Your task to perform on an android device: open wifi settings Image 0: 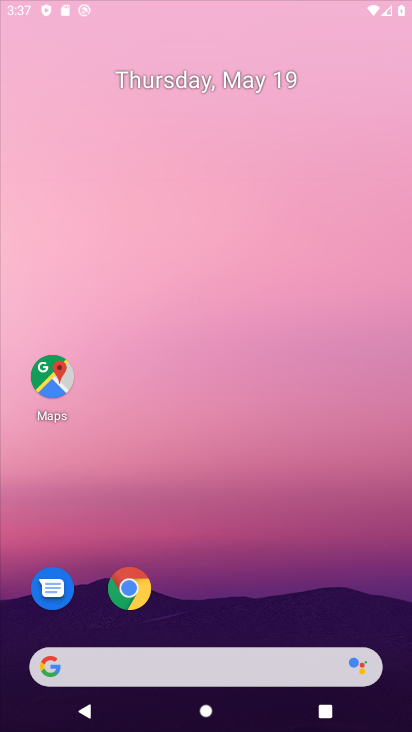
Step 0: click (134, 593)
Your task to perform on an android device: open wifi settings Image 1: 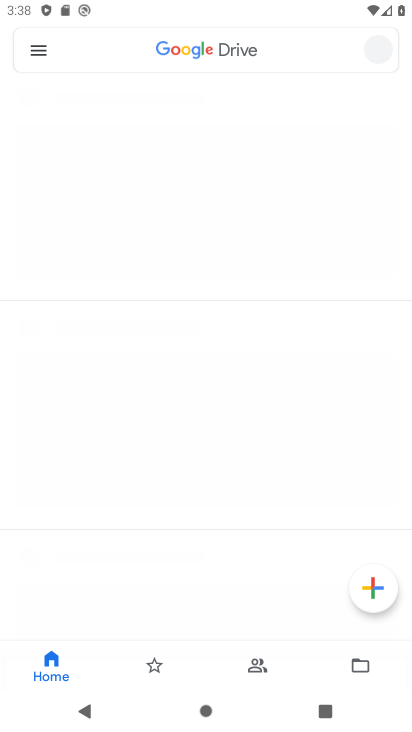
Step 1: click (201, 570)
Your task to perform on an android device: open wifi settings Image 2: 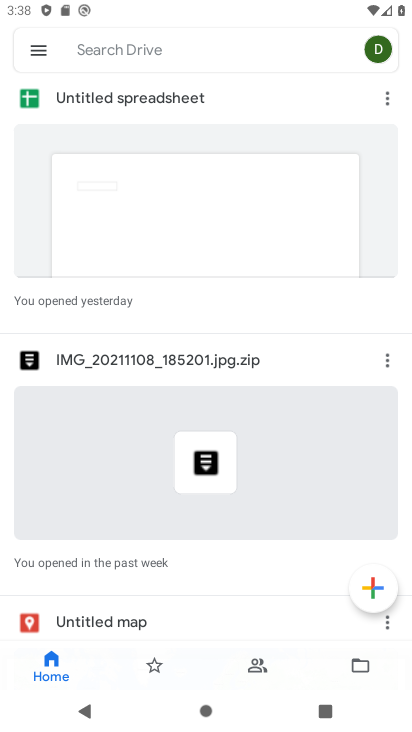
Step 2: press home button
Your task to perform on an android device: open wifi settings Image 3: 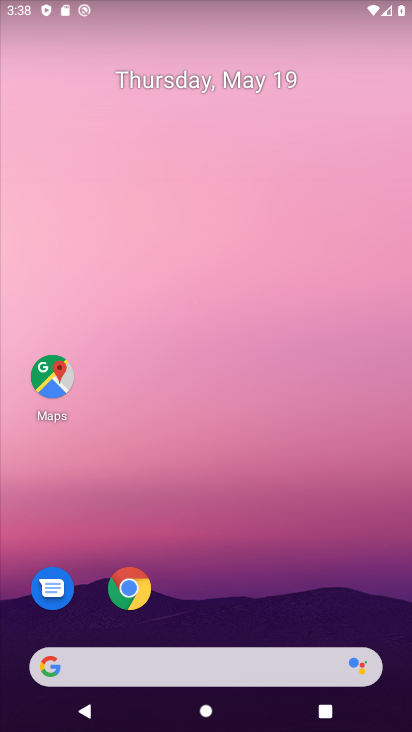
Step 3: drag from (255, 598) to (298, 196)
Your task to perform on an android device: open wifi settings Image 4: 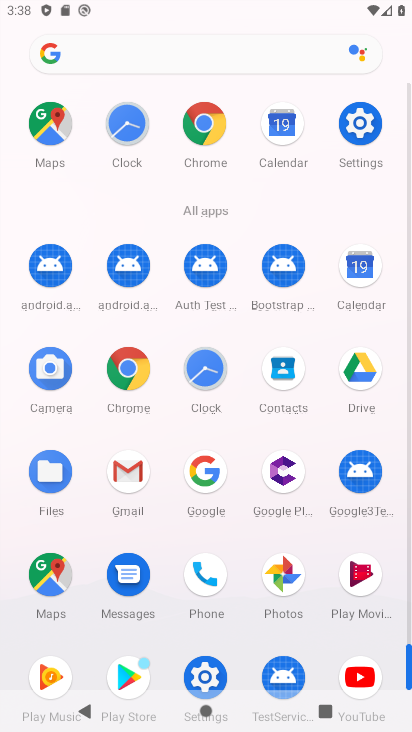
Step 4: click (370, 133)
Your task to perform on an android device: open wifi settings Image 5: 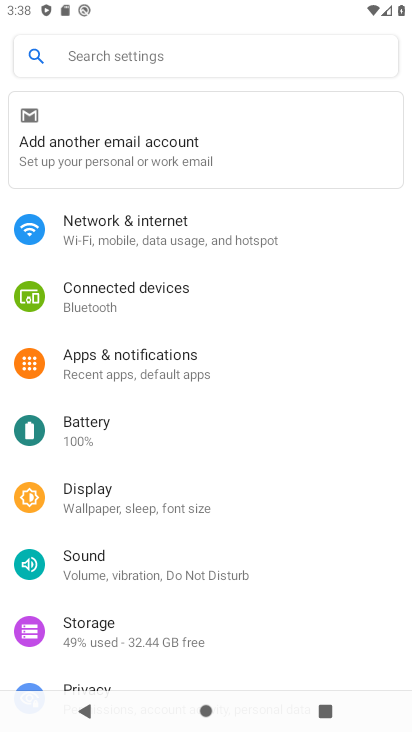
Step 5: click (162, 223)
Your task to perform on an android device: open wifi settings Image 6: 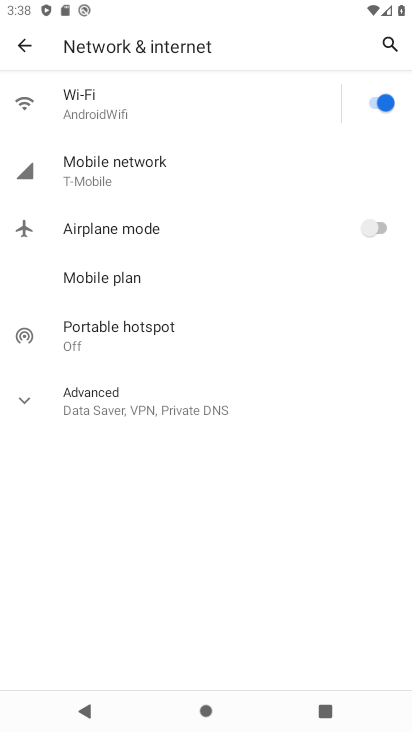
Step 6: click (117, 98)
Your task to perform on an android device: open wifi settings Image 7: 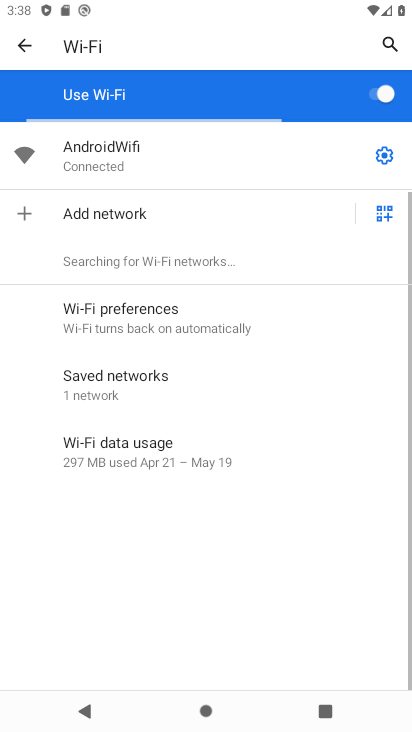
Step 7: task complete